Your task to perform on an android device: Clear the cart on newegg. Image 0: 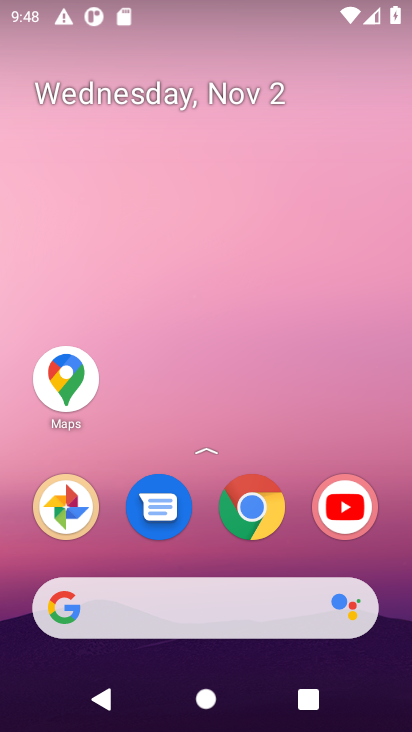
Step 0: click (242, 603)
Your task to perform on an android device: Clear the cart on newegg. Image 1: 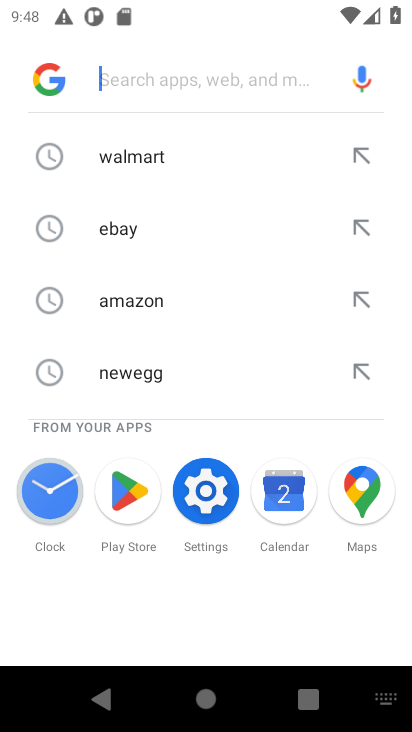
Step 1: click (134, 355)
Your task to perform on an android device: Clear the cart on newegg. Image 2: 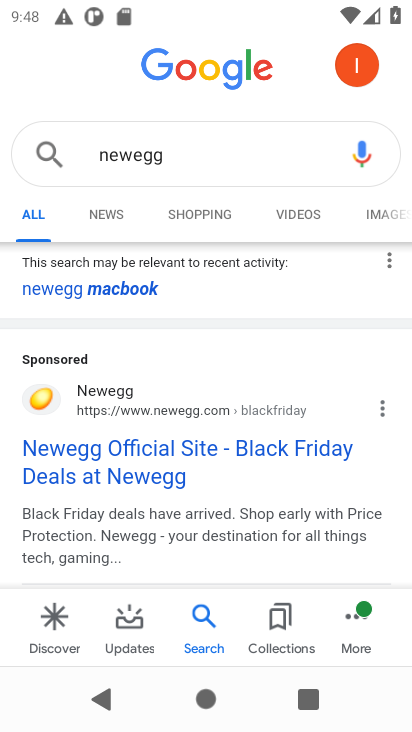
Step 2: click (163, 461)
Your task to perform on an android device: Clear the cart on newegg. Image 3: 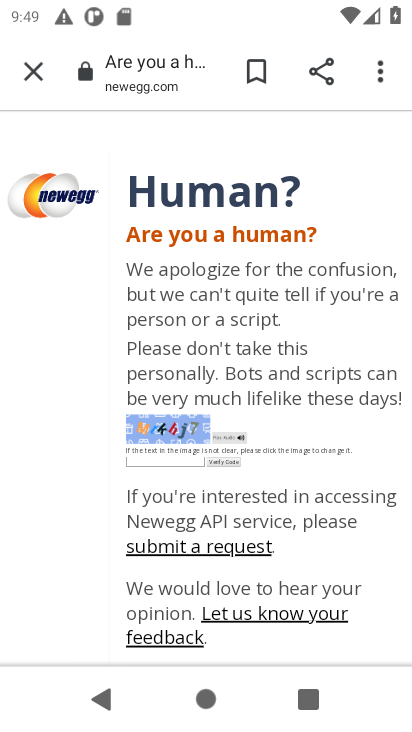
Step 3: click (180, 468)
Your task to perform on an android device: Clear the cart on newegg. Image 4: 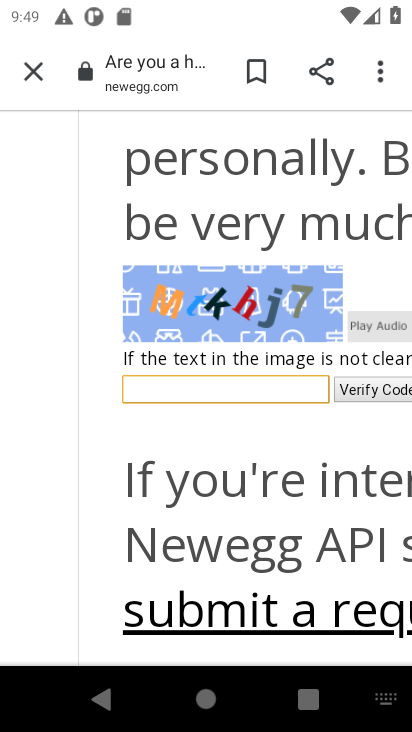
Step 4: type "Mtkhj7"
Your task to perform on an android device: Clear the cart on newegg. Image 5: 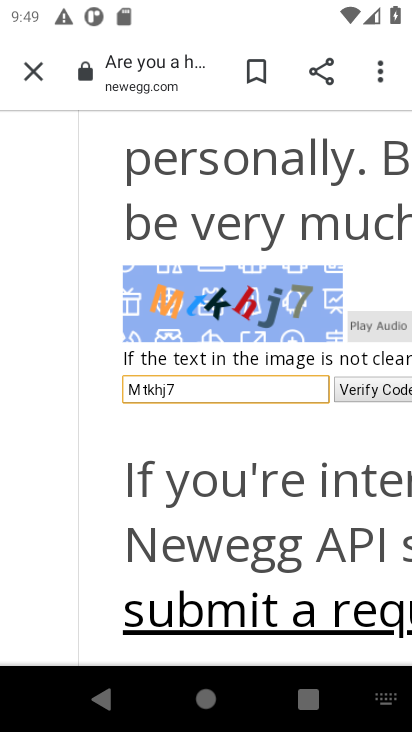
Step 5: click (382, 391)
Your task to perform on an android device: Clear the cart on newegg. Image 6: 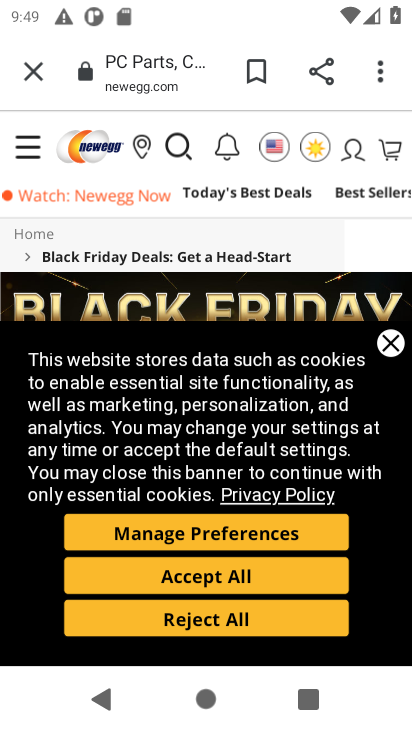
Step 6: click (197, 593)
Your task to perform on an android device: Clear the cart on newegg. Image 7: 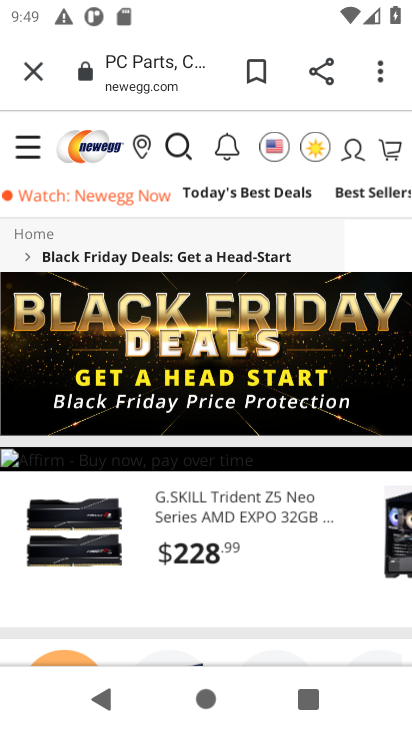
Step 7: task complete